Your task to perform on an android device: What's on my calendar today? Image 0: 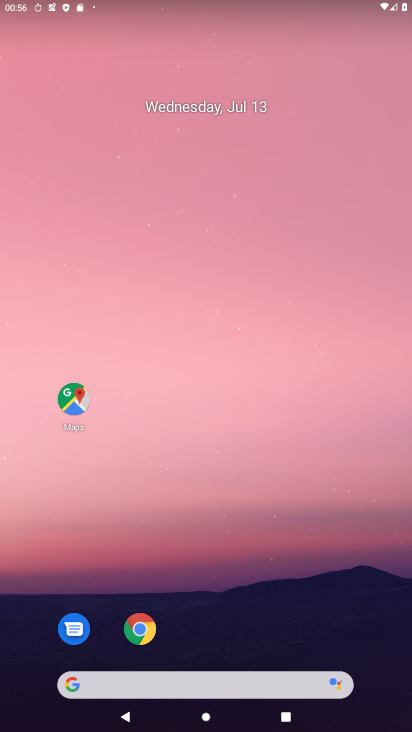
Step 0: drag from (237, 642) to (181, 96)
Your task to perform on an android device: What's on my calendar today? Image 1: 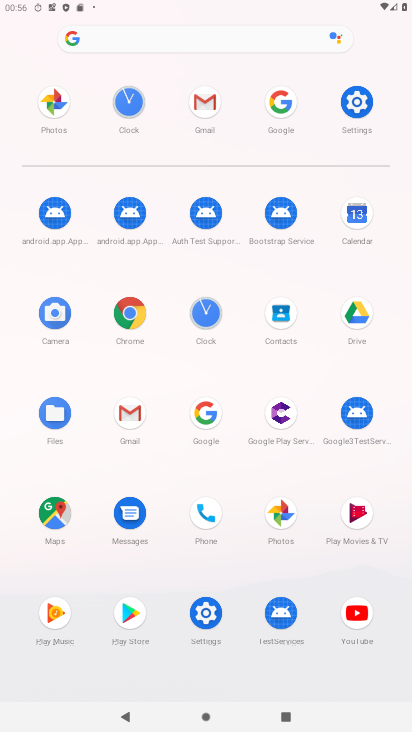
Step 1: click (348, 216)
Your task to perform on an android device: What's on my calendar today? Image 2: 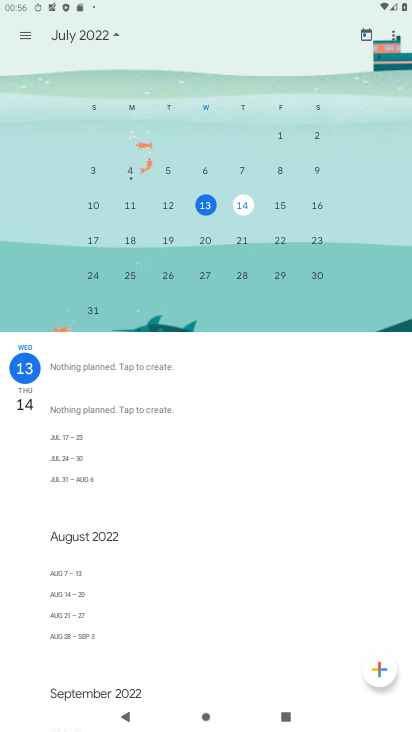
Step 2: task complete